Your task to perform on an android device: open app "Microsoft Authenticator" (install if not already installed) Image 0: 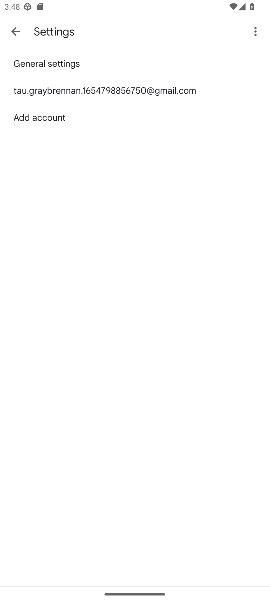
Step 0: click (14, 29)
Your task to perform on an android device: open app "Microsoft Authenticator" (install if not already installed) Image 1: 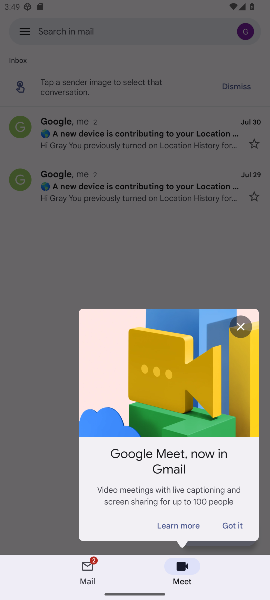
Step 1: press home button
Your task to perform on an android device: open app "Microsoft Authenticator" (install if not already installed) Image 2: 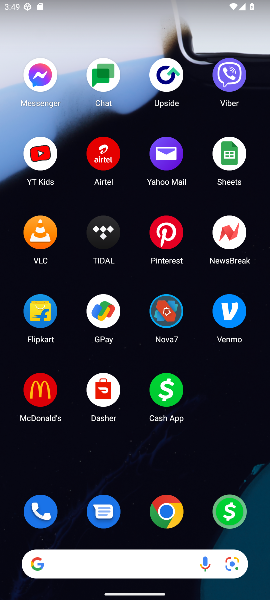
Step 2: drag from (124, 205) to (143, 36)
Your task to perform on an android device: open app "Microsoft Authenticator" (install if not already installed) Image 3: 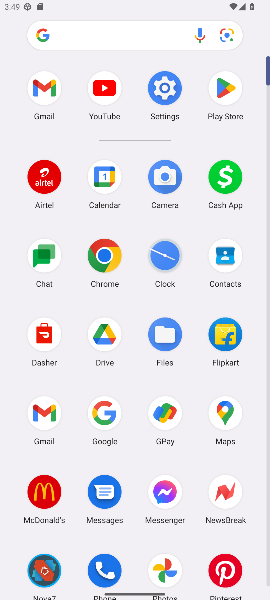
Step 3: click (222, 111)
Your task to perform on an android device: open app "Microsoft Authenticator" (install if not already installed) Image 4: 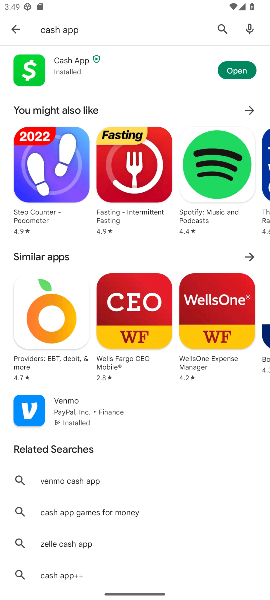
Step 4: click (11, 27)
Your task to perform on an android device: open app "Microsoft Authenticator" (install if not already installed) Image 5: 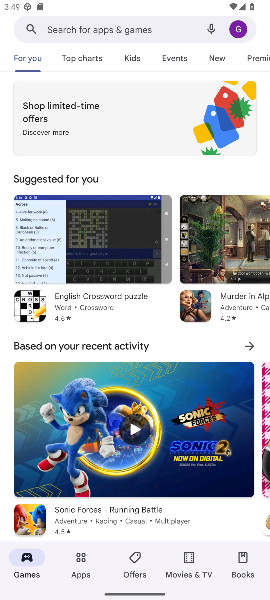
Step 5: click (111, 25)
Your task to perform on an android device: open app "Microsoft Authenticator" (install if not already installed) Image 6: 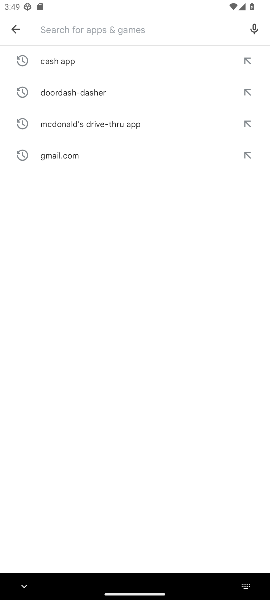
Step 6: type "Microsoft Authenticator"
Your task to perform on an android device: open app "Microsoft Authenticator" (install if not already installed) Image 7: 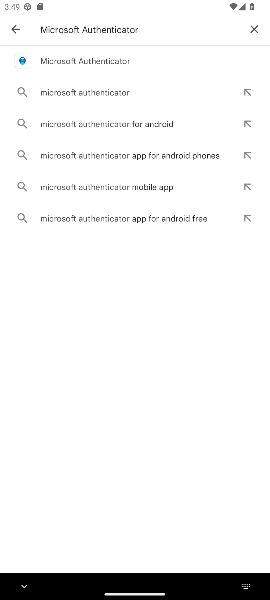
Step 7: click (100, 55)
Your task to perform on an android device: open app "Microsoft Authenticator" (install if not already installed) Image 8: 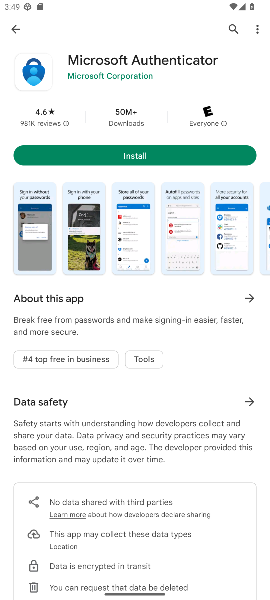
Step 8: click (139, 153)
Your task to perform on an android device: open app "Microsoft Authenticator" (install if not already installed) Image 9: 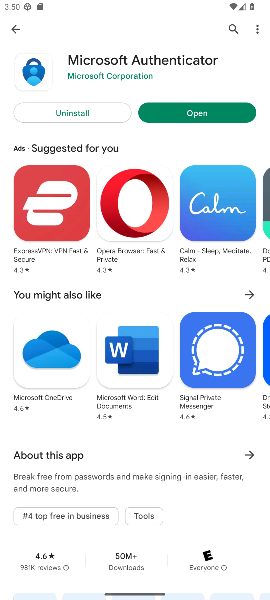
Step 9: click (197, 109)
Your task to perform on an android device: open app "Microsoft Authenticator" (install if not already installed) Image 10: 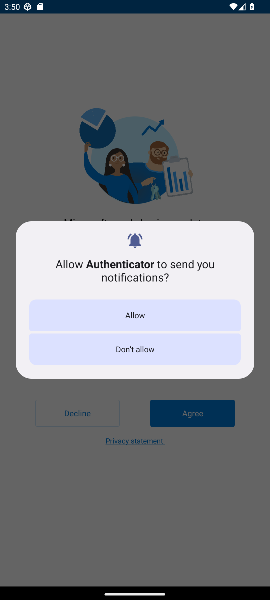
Step 10: click (138, 309)
Your task to perform on an android device: open app "Microsoft Authenticator" (install if not already installed) Image 11: 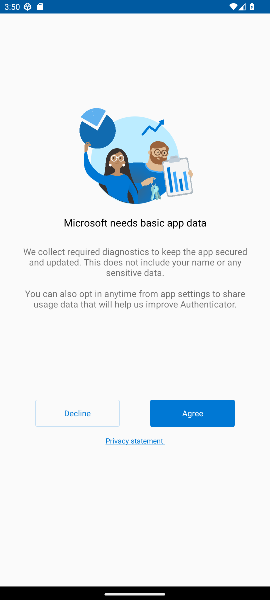
Step 11: task complete